Your task to perform on an android device: check the backup settings in the google photos Image 0: 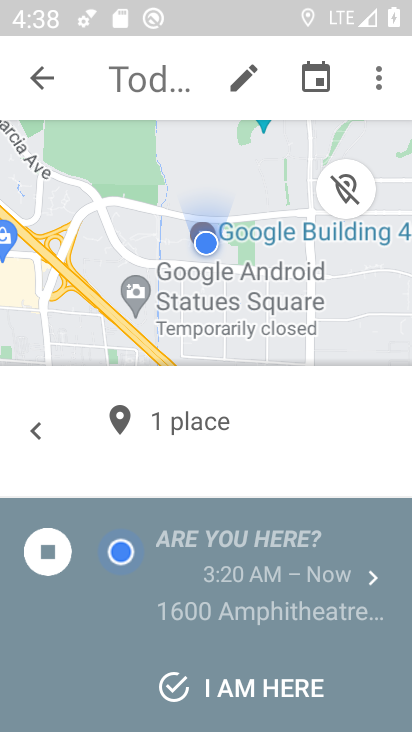
Step 0: press home button
Your task to perform on an android device: check the backup settings in the google photos Image 1: 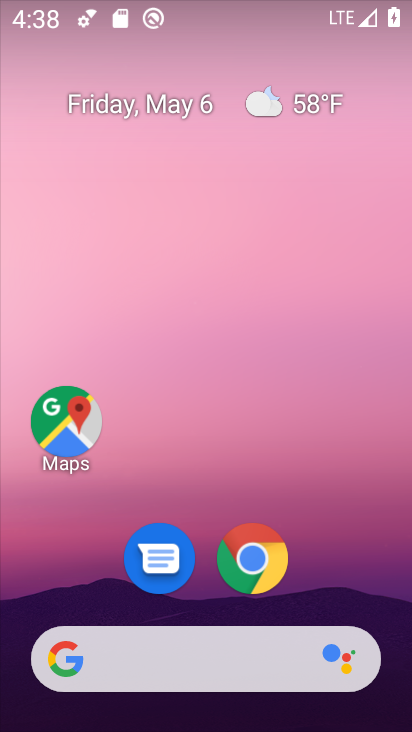
Step 1: drag from (298, 619) to (304, 0)
Your task to perform on an android device: check the backup settings in the google photos Image 2: 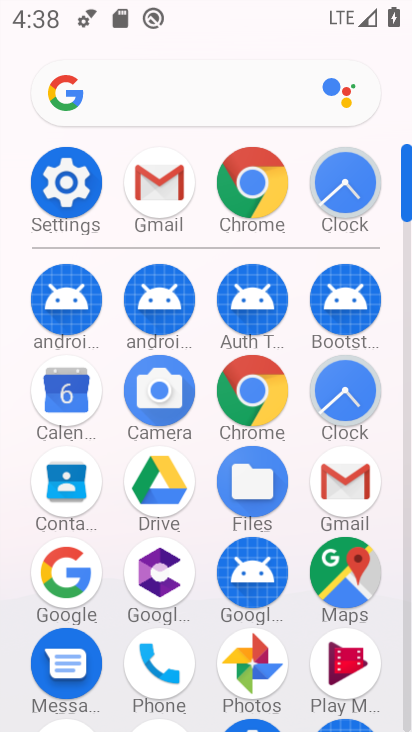
Step 2: click (252, 662)
Your task to perform on an android device: check the backup settings in the google photos Image 3: 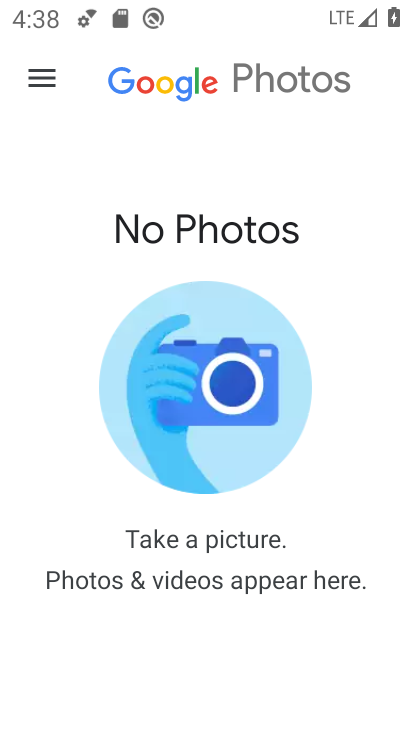
Step 3: click (48, 84)
Your task to perform on an android device: check the backup settings in the google photos Image 4: 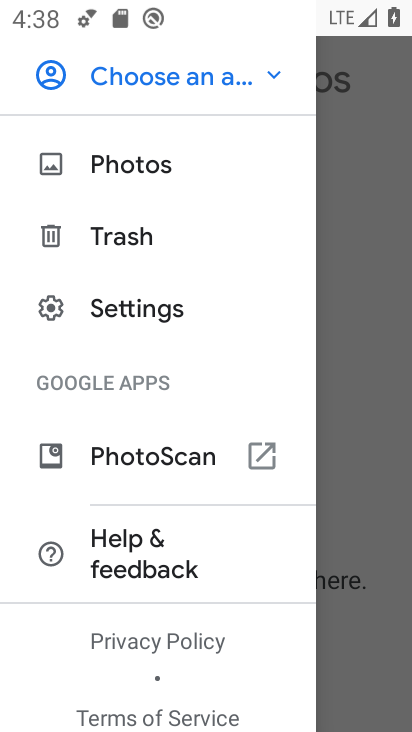
Step 4: click (192, 310)
Your task to perform on an android device: check the backup settings in the google photos Image 5: 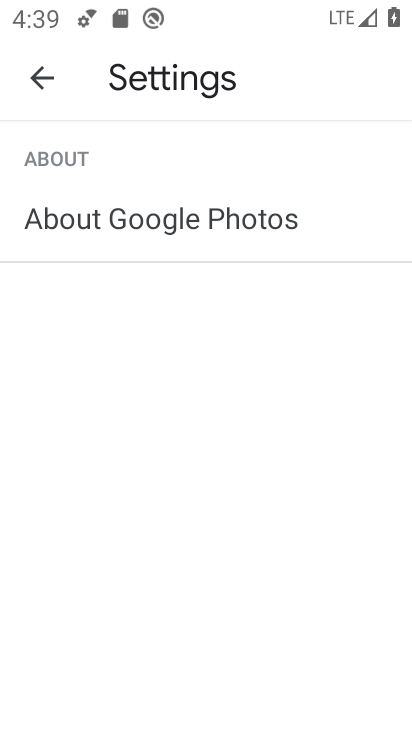
Step 5: press back button
Your task to perform on an android device: check the backup settings in the google photos Image 6: 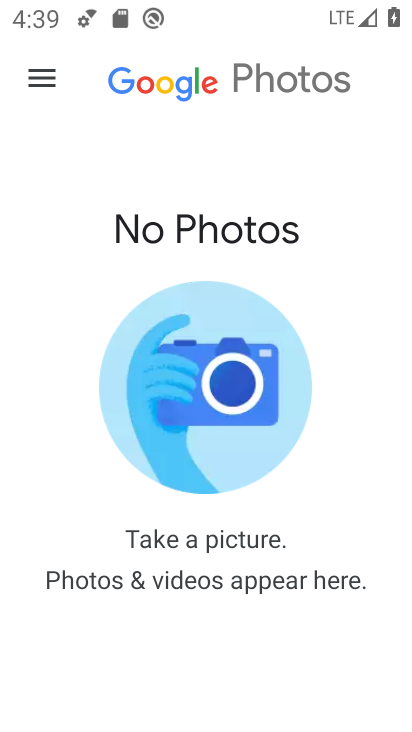
Step 6: click (35, 75)
Your task to perform on an android device: check the backup settings in the google photos Image 7: 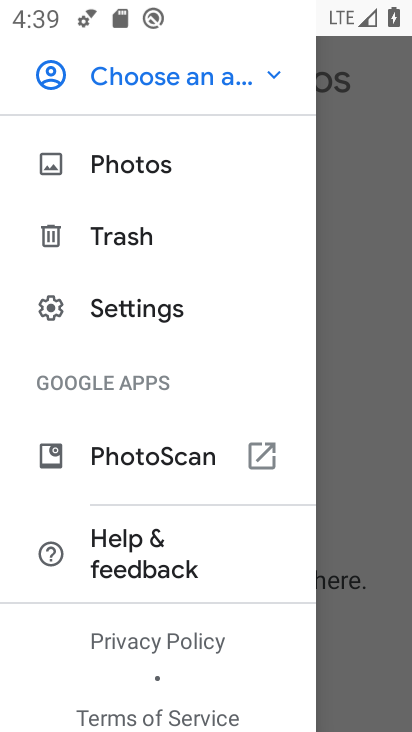
Step 7: drag from (155, 140) to (187, 536)
Your task to perform on an android device: check the backup settings in the google photos Image 8: 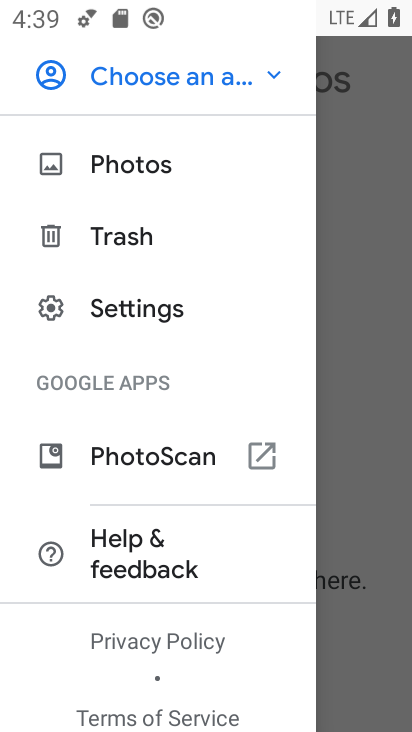
Step 8: drag from (119, 173) to (150, 349)
Your task to perform on an android device: check the backup settings in the google photos Image 9: 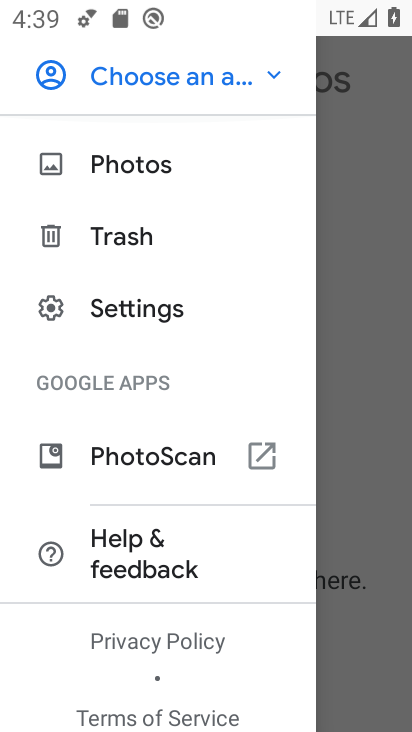
Step 9: click (140, 309)
Your task to perform on an android device: check the backup settings in the google photos Image 10: 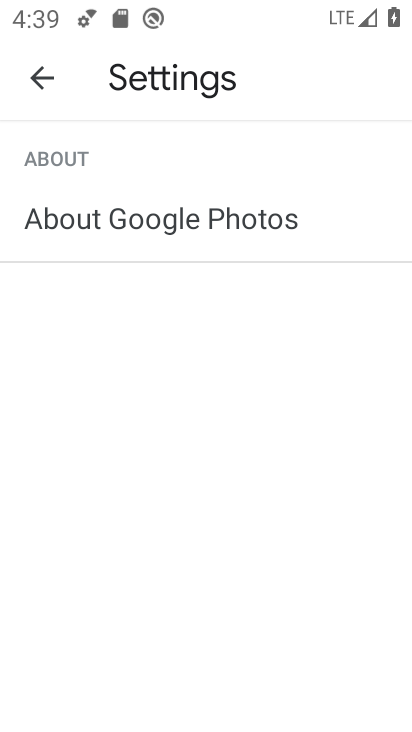
Step 10: task complete